Your task to perform on an android device: turn on sleep mode Image 0: 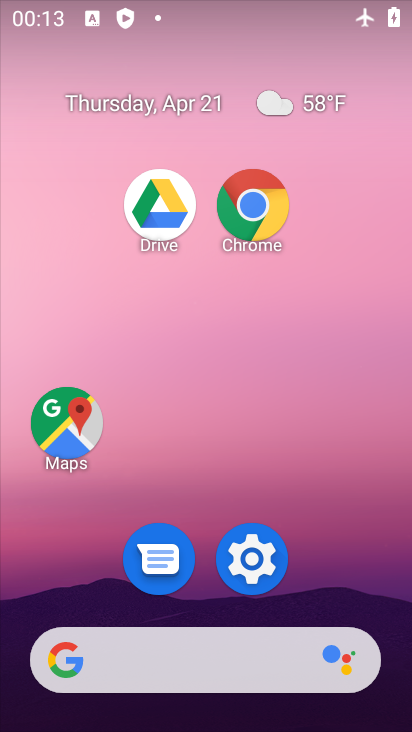
Step 0: drag from (271, 1) to (360, 444)
Your task to perform on an android device: turn on sleep mode Image 1: 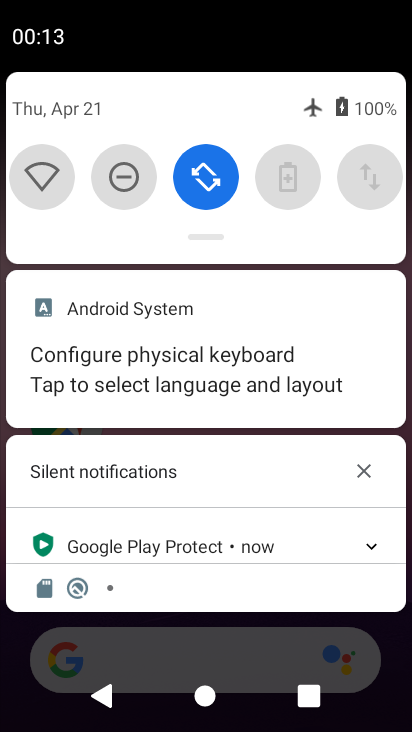
Step 1: task complete